Your task to perform on an android device: turn off notifications settings in the gmail app Image 0: 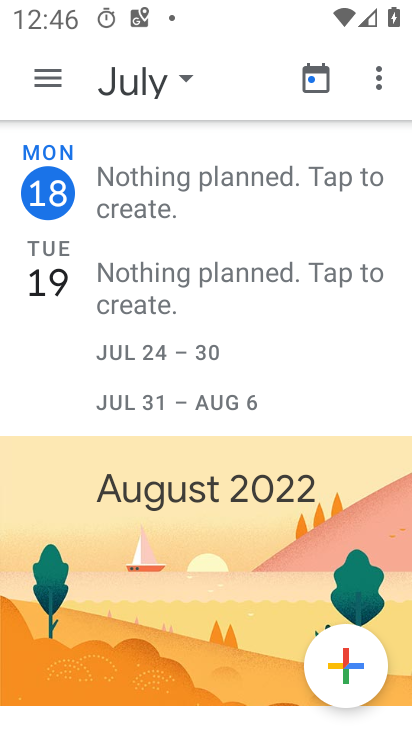
Step 0: press home button
Your task to perform on an android device: turn off notifications settings in the gmail app Image 1: 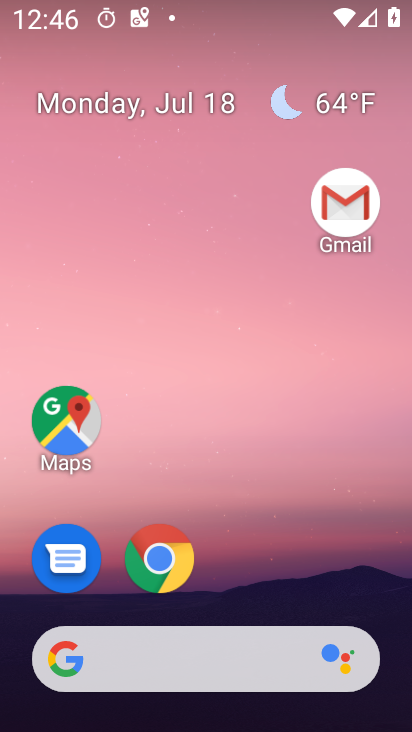
Step 1: drag from (281, 585) to (327, 189)
Your task to perform on an android device: turn off notifications settings in the gmail app Image 2: 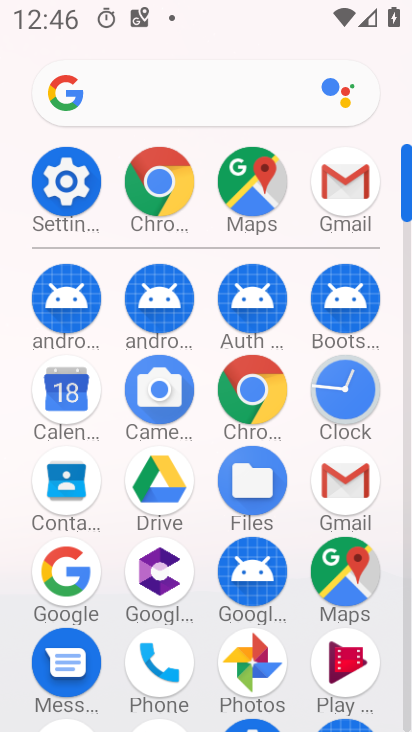
Step 2: click (347, 199)
Your task to perform on an android device: turn off notifications settings in the gmail app Image 3: 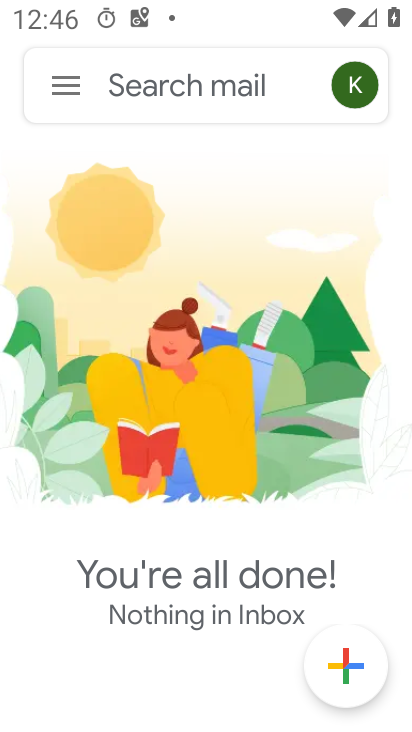
Step 3: click (75, 82)
Your task to perform on an android device: turn off notifications settings in the gmail app Image 4: 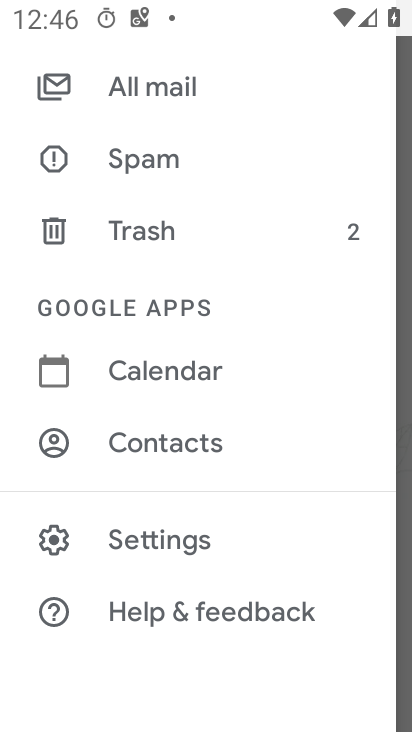
Step 4: drag from (245, 196) to (265, 268)
Your task to perform on an android device: turn off notifications settings in the gmail app Image 5: 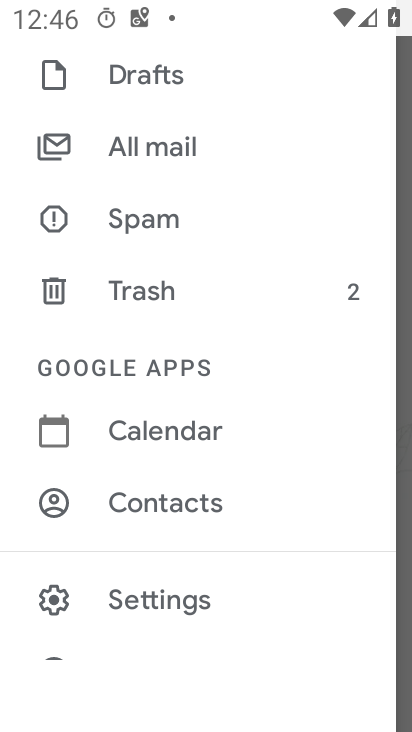
Step 5: drag from (293, 180) to (308, 269)
Your task to perform on an android device: turn off notifications settings in the gmail app Image 6: 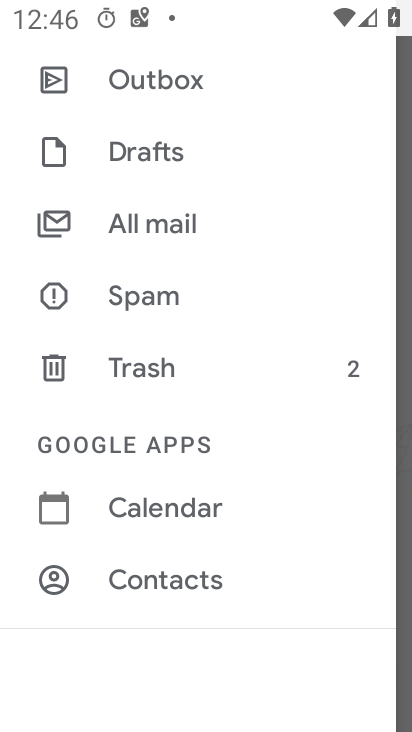
Step 6: drag from (308, 182) to (320, 269)
Your task to perform on an android device: turn off notifications settings in the gmail app Image 7: 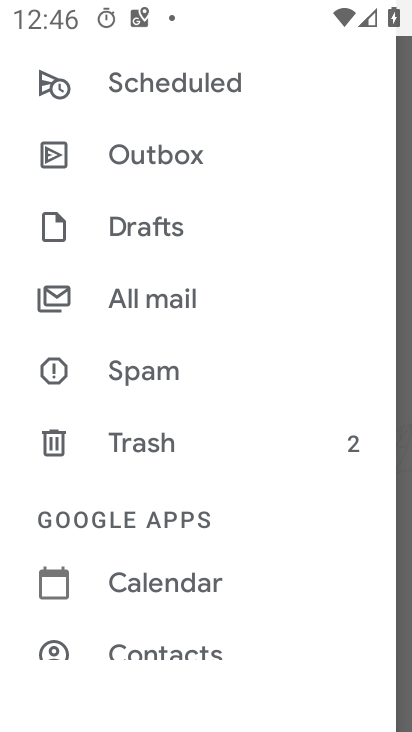
Step 7: drag from (315, 157) to (327, 258)
Your task to perform on an android device: turn off notifications settings in the gmail app Image 8: 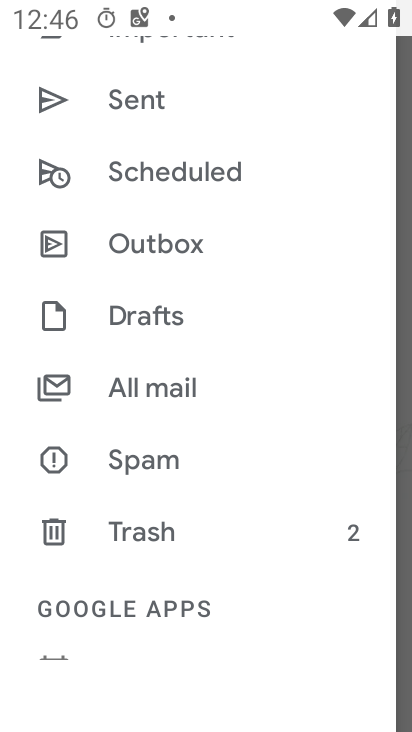
Step 8: drag from (331, 169) to (331, 281)
Your task to perform on an android device: turn off notifications settings in the gmail app Image 9: 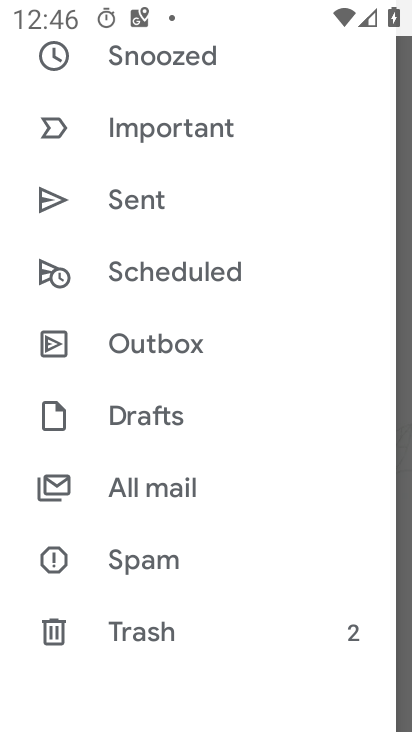
Step 9: drag from (334, 194) to (337, 284)
Your task to perform on an android device: turn off notifications settings in the gmail app Image 10: 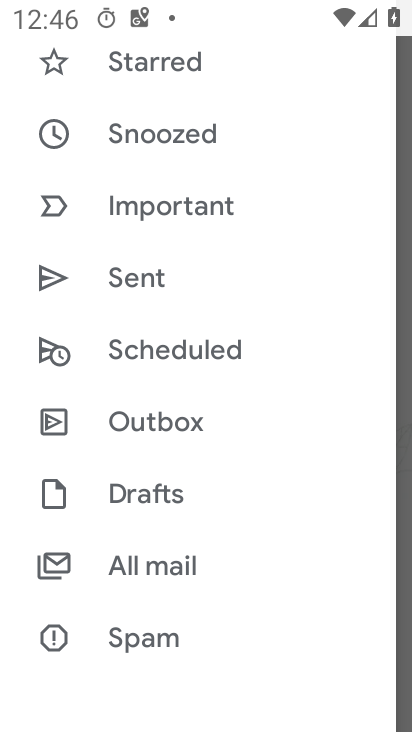
Step 10: drag from (340, 191) to (341, 303)
Your task to perform on an android device: turn off notifications settings in the gmail app Image 11: 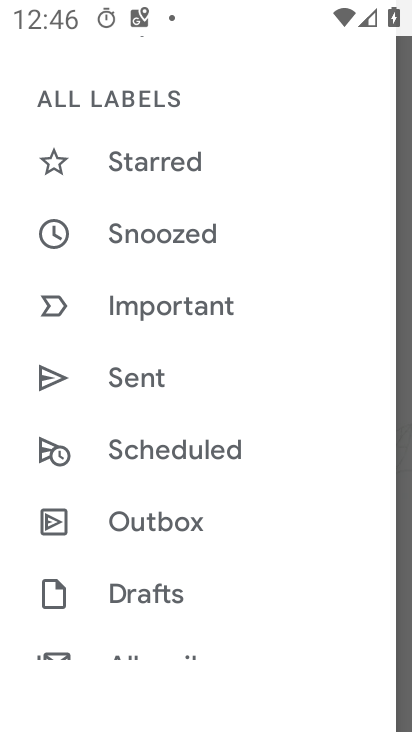
Step 11: drag from (342, 157) to (339, 368)
Your task to perform on an android device: turn off notifications settings in the gmail app Image 12: 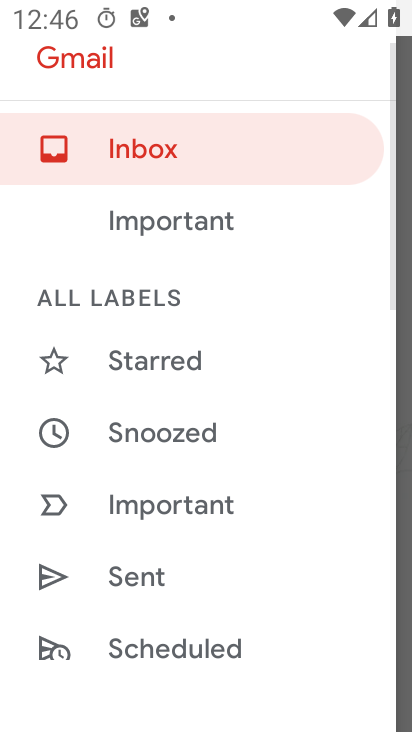
Step 12: drag from (330, 470) to (337, 331)
Your task to perform on an android device: turn off notifications settings in the gmail app Image 13: 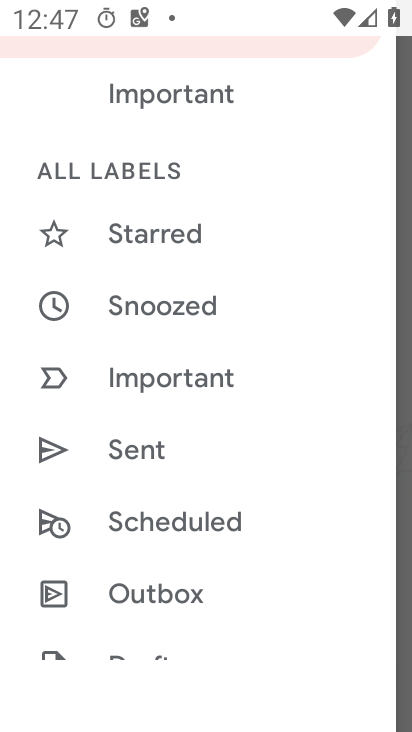
Step 13: drag from (321, 474) to (343, 351)
Your task to perform on an android device: turn off notifications settings in the gmail app Image 14: 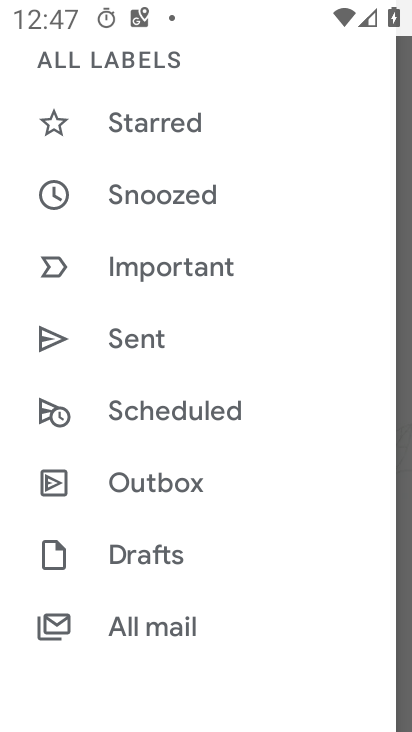
Step 14: drag from (315, 539) to (337, 386)
Your task to perform on an android device: turn off notifications settings in the gmail app Image 15: 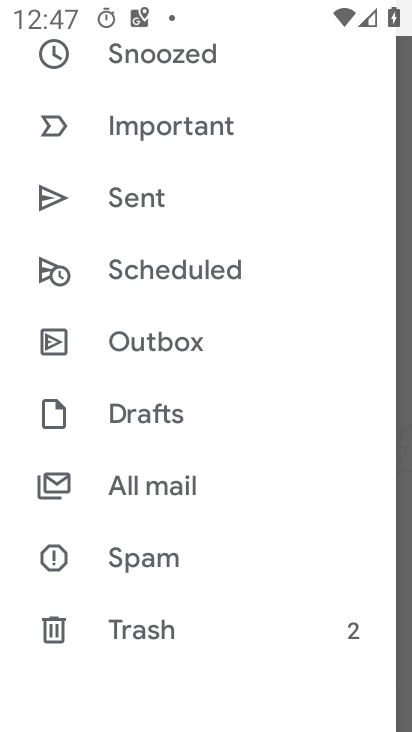
Step 15: drag from (303, 576) to (308, 431)
Your task to perform on an android device: turn off notifications settings in the gmail app Image 16: 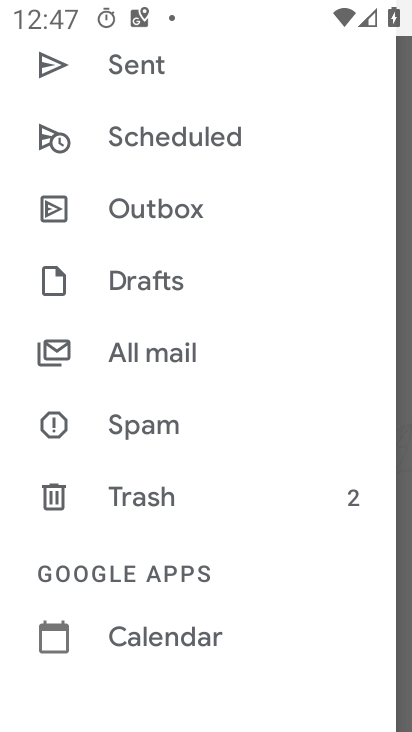
Step 16: drag from (290, 603) to (295, 465)
Your task to perform on an android device: turn off notifications settings in the gmail app Image 17: 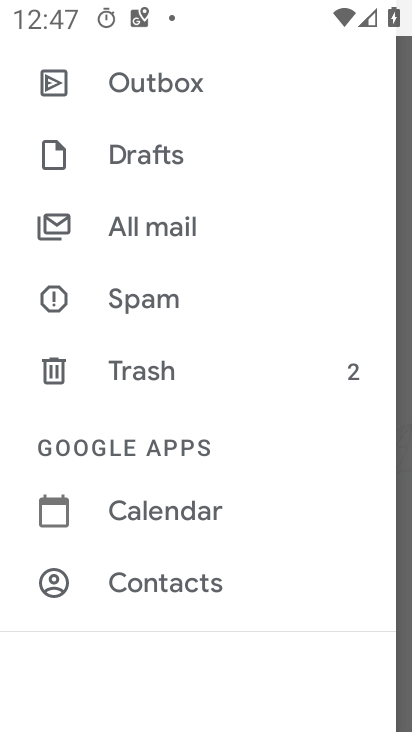
Step 17: drag from (265, 619) to (283, 438)
Your task to perform on an android device: turn off notifications settings in the gmail app Image 18: 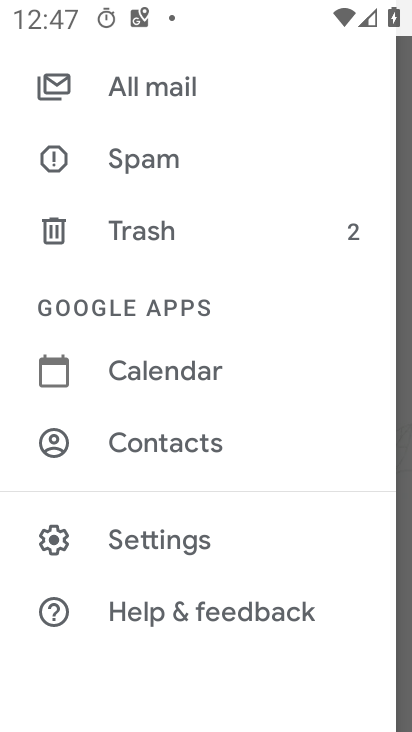
Step 18: click (248, 538)
Your task to perform on an android device: turn off notifications settings in the gmail app Image 19: 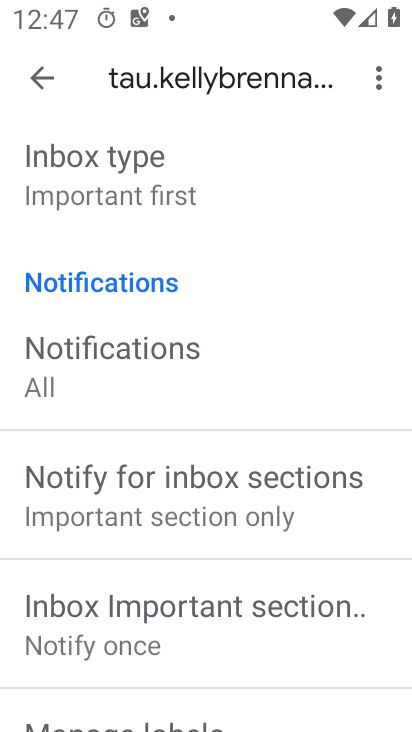
Step 19: drag from (363, 548) to (363, 437)
Your task to perform on an android device: turn off notifications settings in the gmail app Image 20: 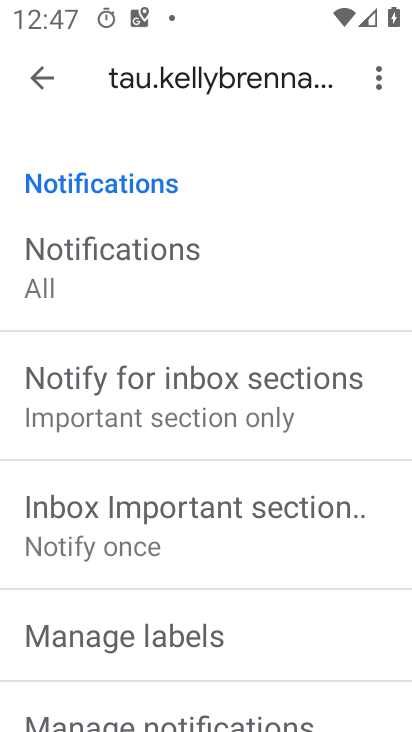
Step 20: drag from (363, 577) to (364, 461)
Your task to perform on an android device: turn off notifications settings in the gmail app Image 21: 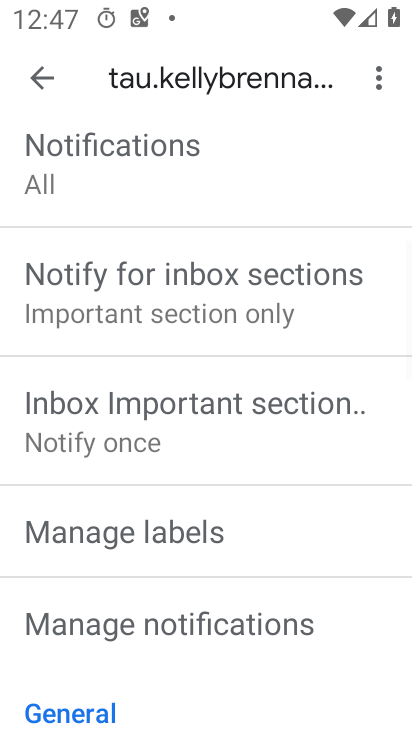
Step 21: drag from (357, 596) to (357, 468)
Your task to perform on an android device: turn off notifications settings in the gmail app Image 22: 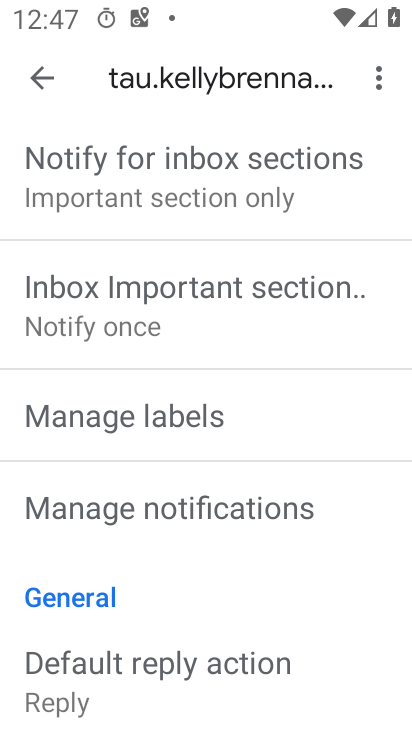
Step 22: click (332, 535)
Your task to perform on an android device: turn off notifications settings in the gmail app Image 23: 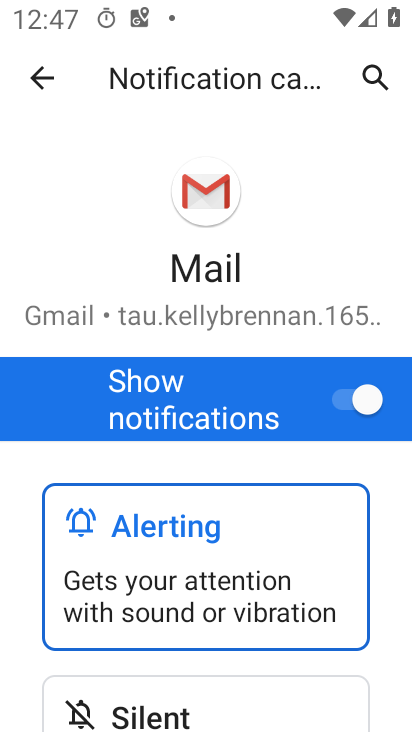
Step 23: click (346, 403)
Your task to perform on an android device: turn off notifications settings in the gmail app Image 24: 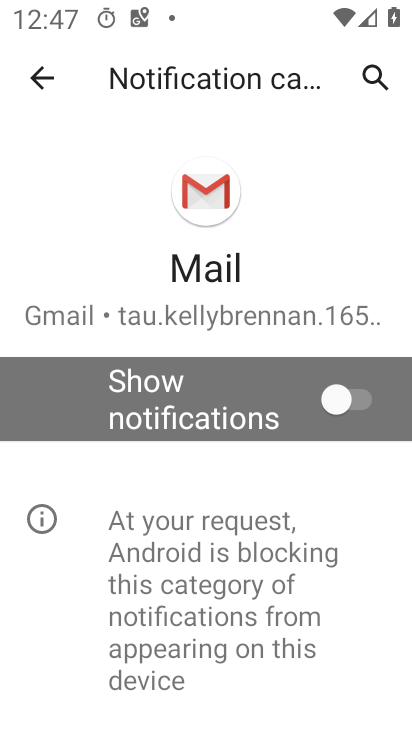
Step 24: task complete